Your task to perform on an android device: Open Google Chrome and open the bookmarks view Image 0: 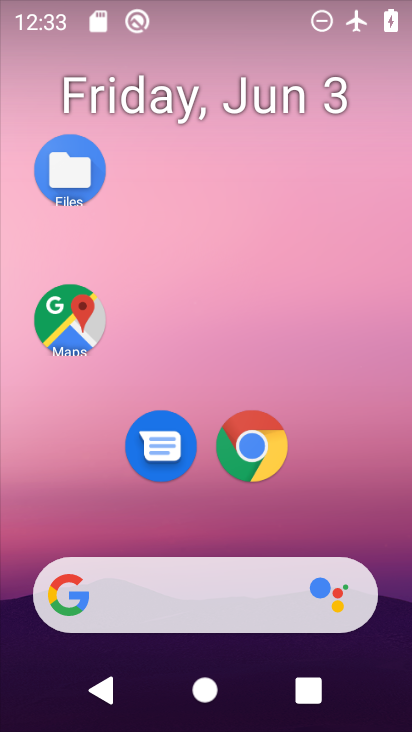
Step 0: drag from (272, 692) to (209, 86)
Your task to perform on an android device: Open Google Chrome and open the bookmarks view Image 1: 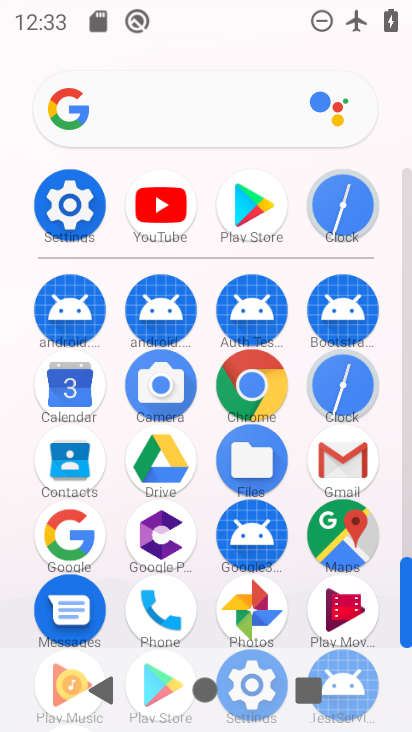
Step 1: click (250, 369)
Your task to perform on an android device: Open Google Chrome and open the bookmarks view Image 2: 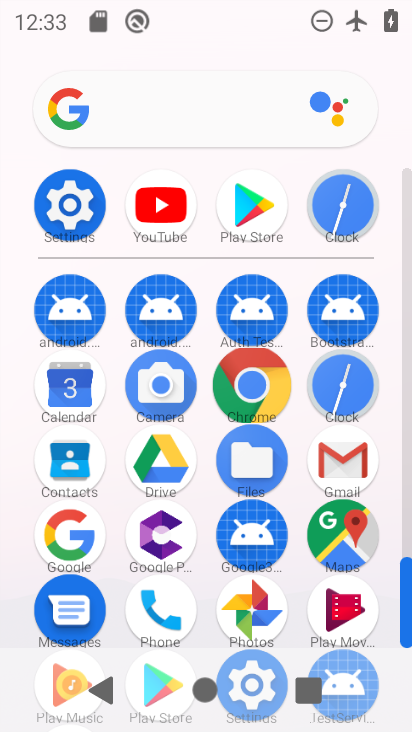
Step 2: click (250, 371)
Your task to perform on an android device: Open Google Chrome and open the bookmarks view Image 3: 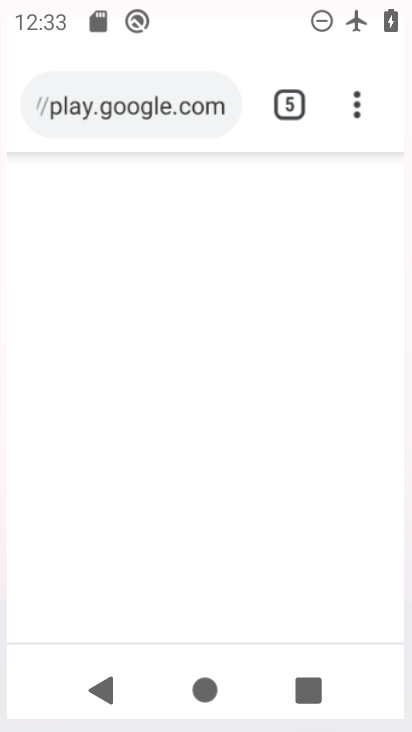
Step 3: click (250, 371)
Your task to perform on an android device: Open Google Chrome and open the bookmarks view Image 4: 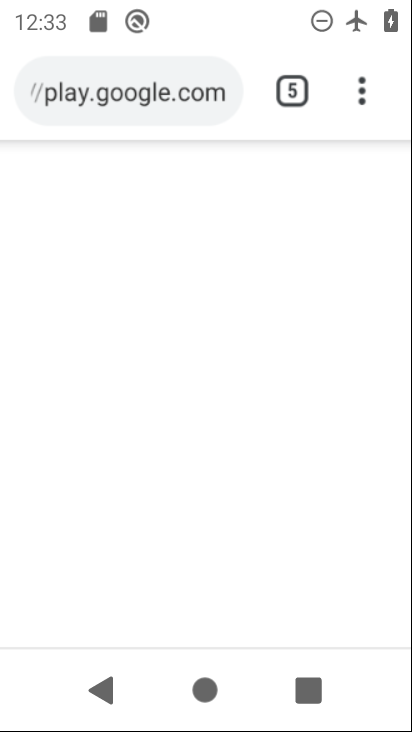
Step 4: click (250, 372)
Your task to perform on an android device: Open Google Chrome and open the bookmarks view Image 5: 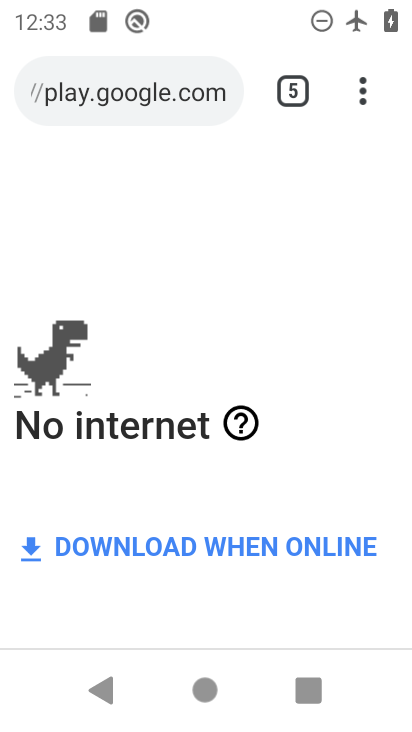
Step 5: task complete